Your task to perform on an android device: Open Wikipedia Image 0: 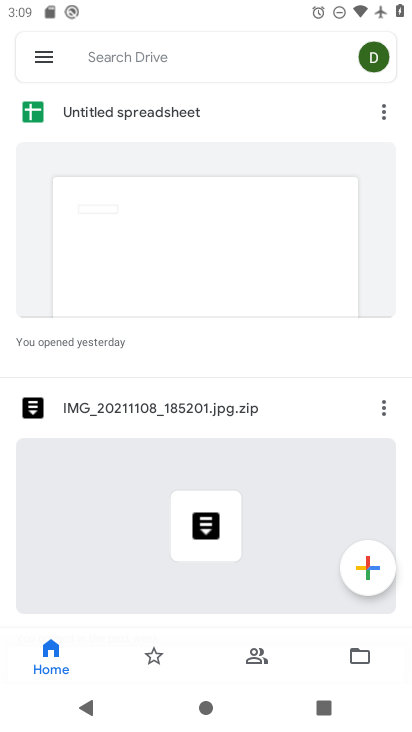
Step 0: drag from (274, 569) to (259, 169)
Your task to perform on an android device: Open Wikipedia Image 1: 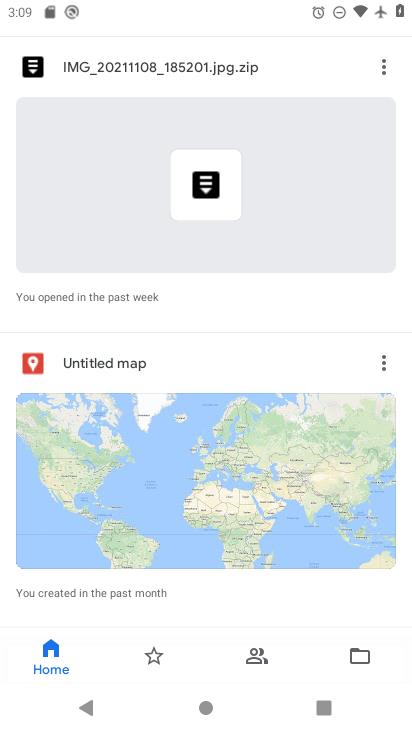
Step 1: press home button
Your task to perform on an android device: Open Wikipedia Image 2: 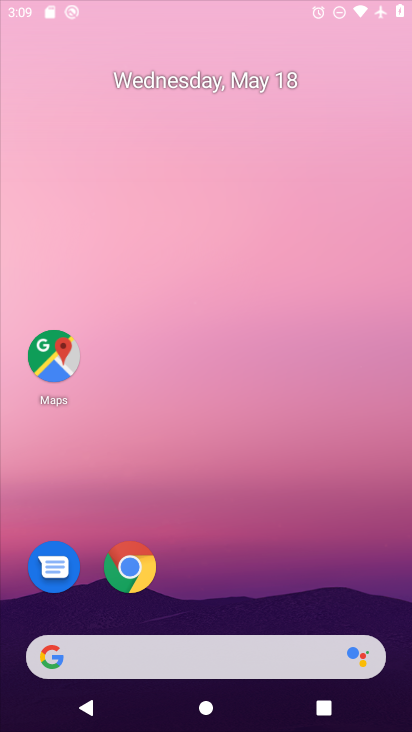
Step 2: drag from (194, 625) to (199, 305)
Your task to perform on an android device: Open Wikipedia Image 3: 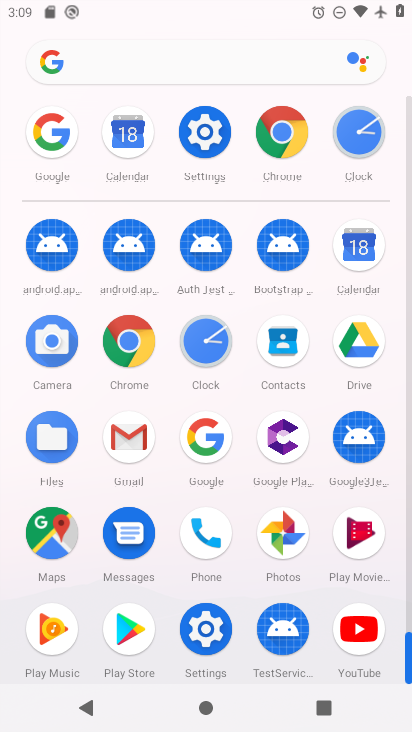
Step 3: click (132, 339)
Your task to perform on an android device: Open Wikipedia Image 4: 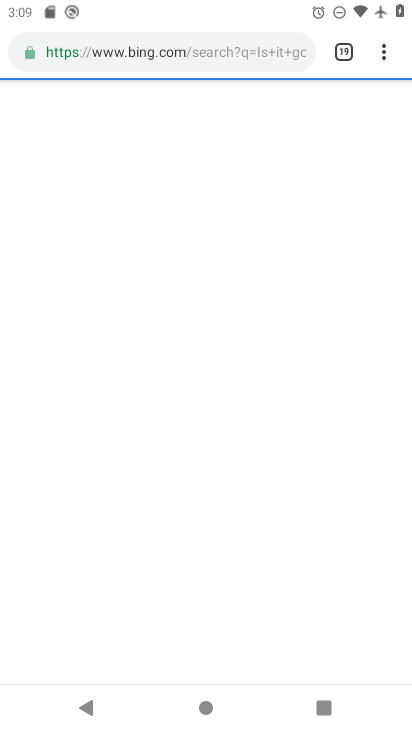
Step 4: click (372, 46)
Your task to perform on an android device: Open Wikipedia Image 5: 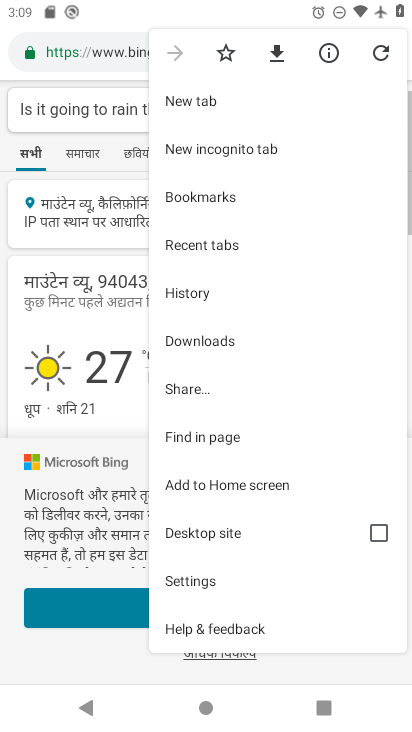
Step 5: click (192, 103)
Your task to perform on an android device: Open Wikipedia Image 6: 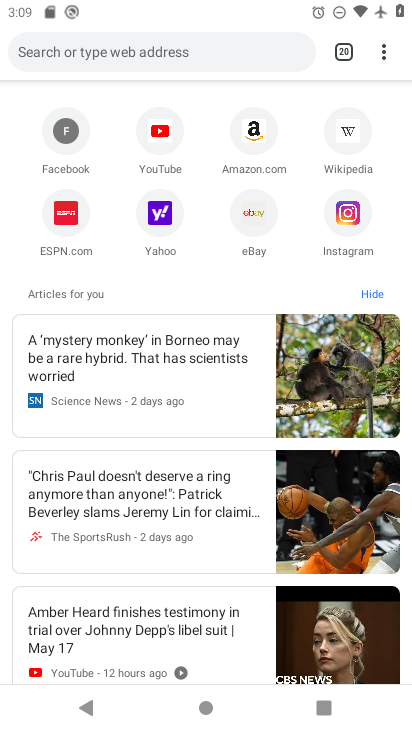
Step 6: click (350, 127)
Your task to perform on an android device: Open Wikipedia Image 7: 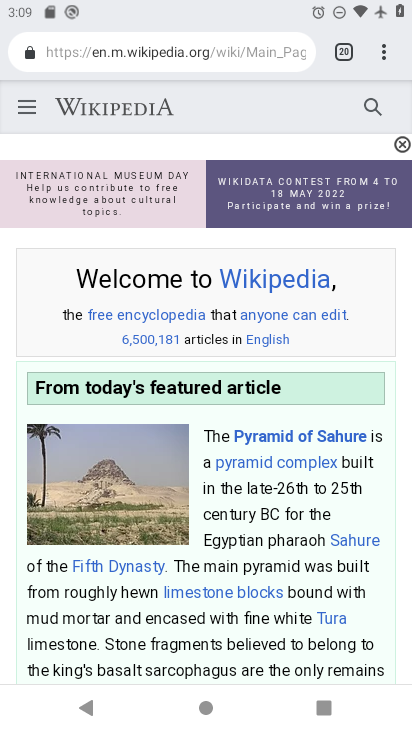
Step 7: task complete